Your task to perform on an android device: Empty the shopping cart on newegg.com. Add "bose soundlink" to the cart on newegg.com Image 0: 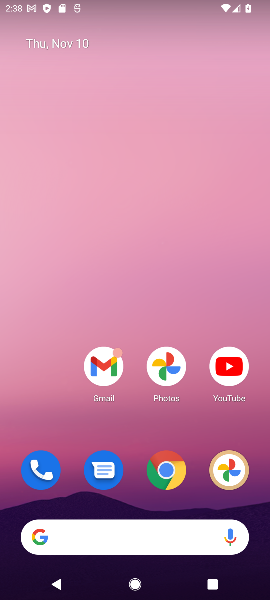
Step 0: click (173, 476)
Your task to perform on an android device: Empty the shopping cart on newegg.com. Add "bose soundlink" to the cart on newegg.com Image 1: 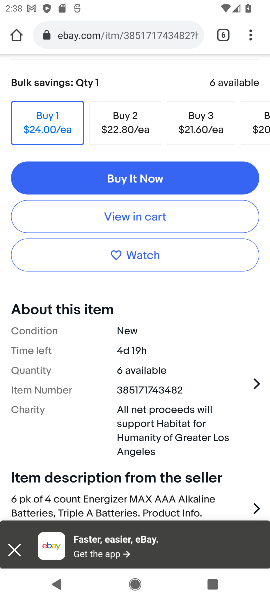
Step 1: click (221, 35)
Your task to perform on an android device: Empty the shopping cart on newegg.com. Add "bose soundlink" to the cart on newegg.com Image 2: 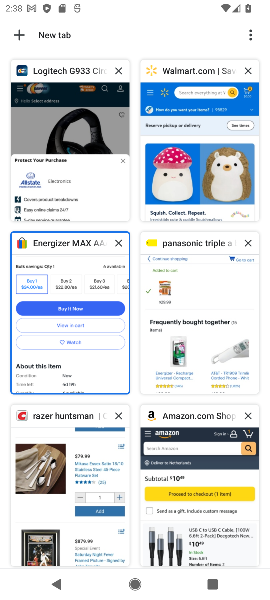
Step 2: click (71, 110)
Your task to perform on an android device: Empty the shopping cart on newegg.com. Add "bose soundlink" to the cart on newegg.com Image 3: 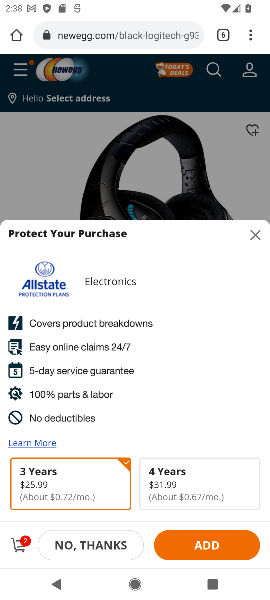
Step 3: click (257, 235)
Your task to perform on an android device: Empty the shopping cart on newegg.com. Add "bose soundlink" to the cart on newegg.com Image 4: 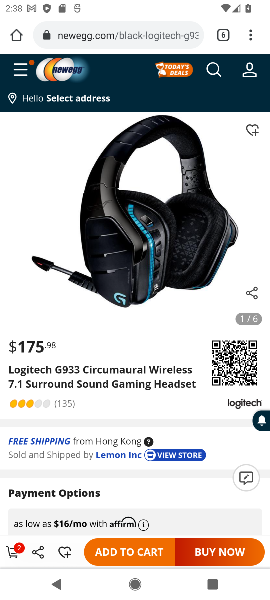
Step 4: click (14, 555)
Your task to perform on an android device: Empty the shopping cart on newegg.com. Add "bose soundlink" to the cart on newegg.com Image 5: 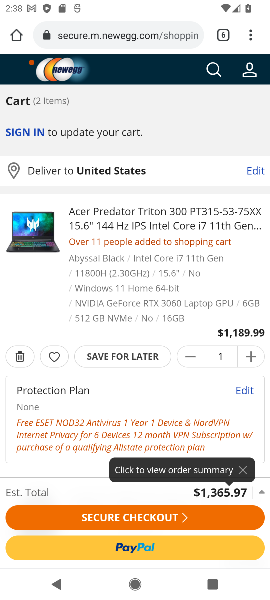
Step 5: click (19, 358)
Your task to perform on an android device: Empty the shopping cart on newegg.com. Add "bose soundlink" to the cart on newegg.com Image 6: 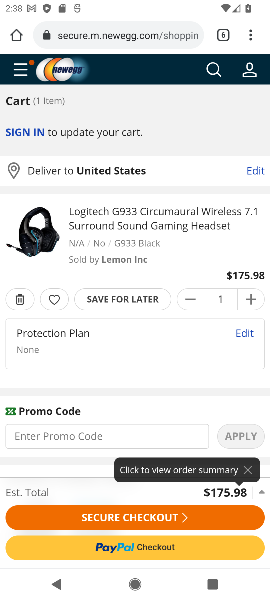
Step 6: click (21, 300)
Your task to perform on an android device: Empty the shopping cart on newegg.com. Add "bose soundlink" to the cart on newegg.com Image 7: 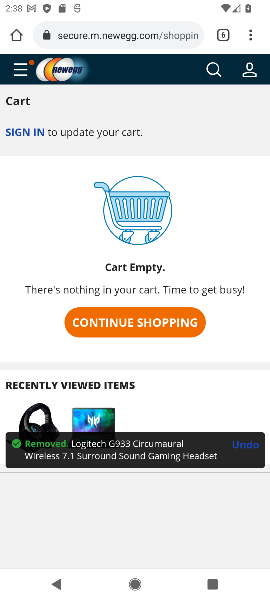
Step 7: click (218, 72)
Your task to perform on an android device: Empty the shopping cart on newegg.com. Add "bose soundlink" to the cart on newegg.com Image 8: 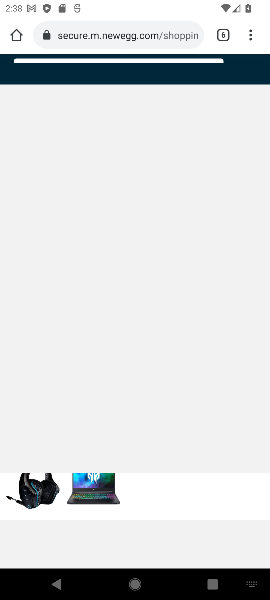
Step 8: type "bose soundlink"
Your task to perform on an android device: Empty the shopping cart on newegg.com. Add "bose soundlink" to the cart on newegg.com Image 9: 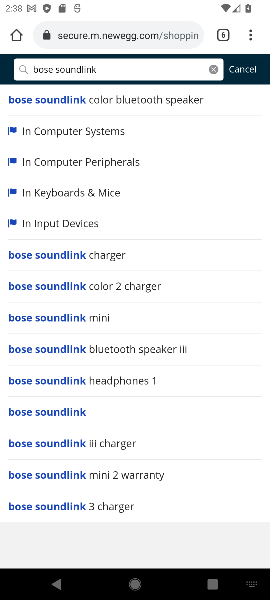
Step 9: click (20, 96)
Your task to perform on an android device: Empty the shopping cart on newegg.com. Add "bose soundlink" to the cart on newegg.com Image 10: 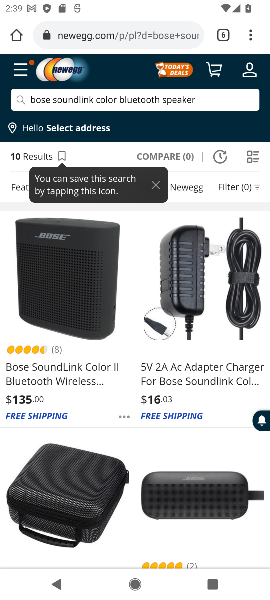
Step 10: click (66, 368)
Your task to perform on an android device: Empty the shopping cart on newegg.com. Add "bose soundlink" to the cart on newegg.com Image 11: 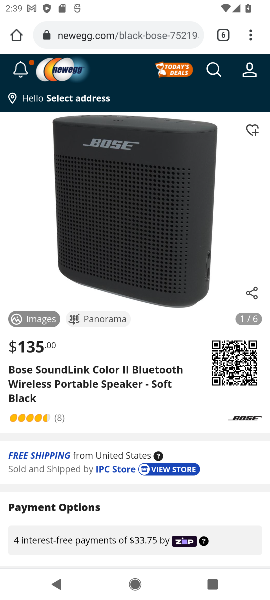
Step 11: click (142, 552)
Your task to perform on an android device: Empty the shopping cart on newegg.com. Add "bose soundlink" to the cart on newegg.com Image 12: 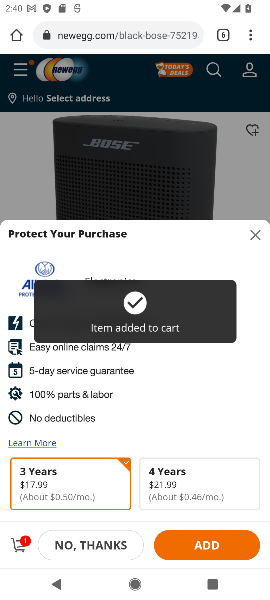
Step 12: task complete